Your task to perform on an android device: Open Google Chrome Image 0: 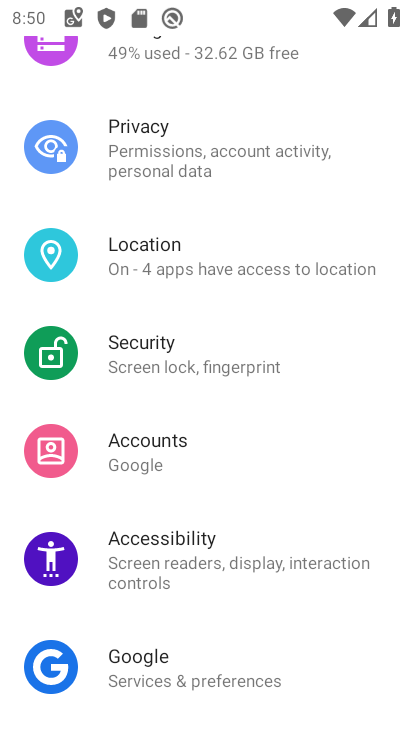
Step 0: press home button
Your task to perform on an android device: Open Google Chrome Image 1: 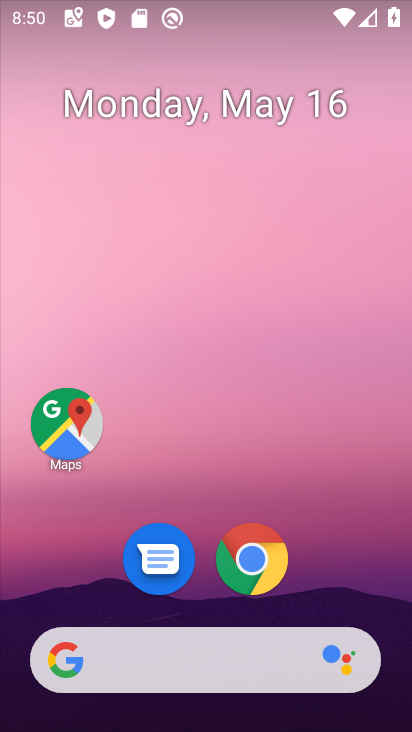
Step 1: click (248, 557)
Your task to perform on an android device: Open Google Chrome Image 2: 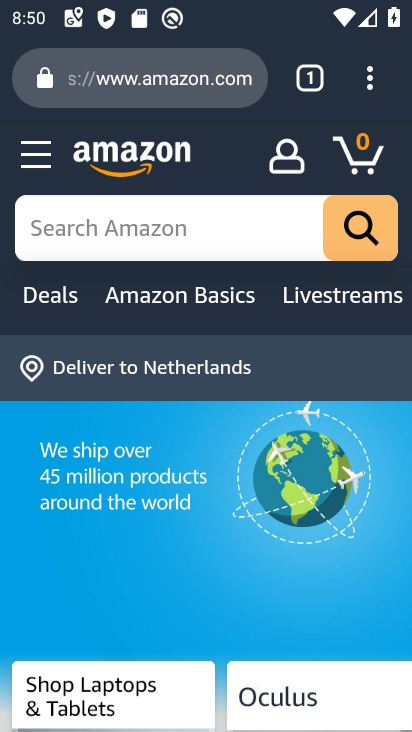
Step 2: task complete